Your task to perform on an android device: turn on notifications settings in the gmail app Image 0: 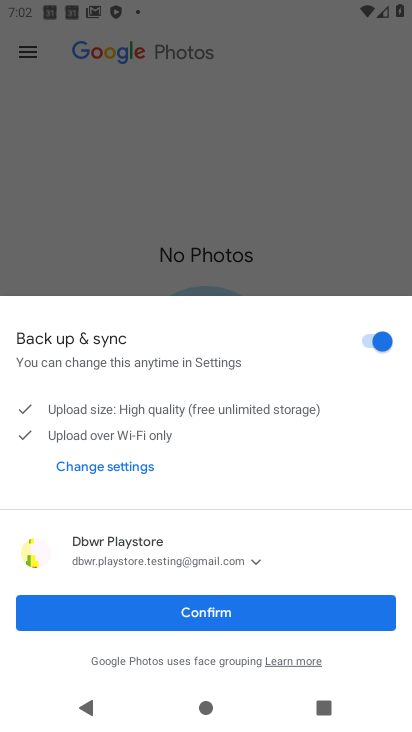
Step 0: press home button
Your task to perform on an android device: turn on notifications settings in the gmail app Image 1: 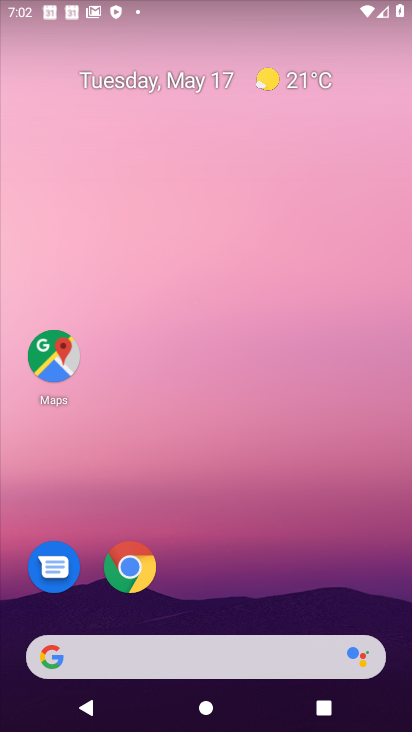
Step 1: drag from (286, 499) to (253, 41)
Your task to perform on an android device: turn on notifications settings in the gmail app Image 2: 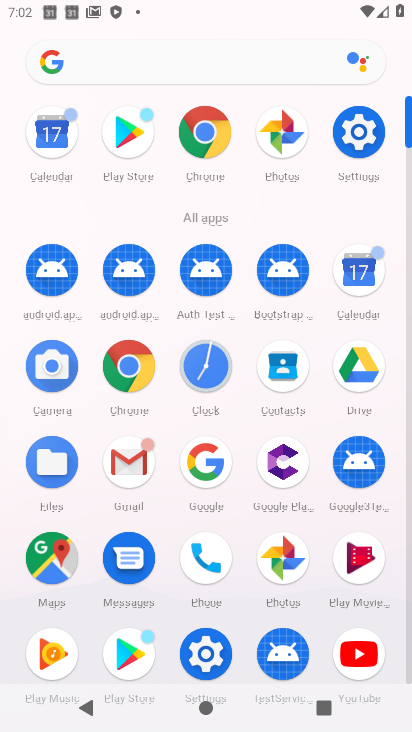
Step 2: click (121, 456)
Your task to perform on an android device: turn on notifications settings in the gmail app Image 3: 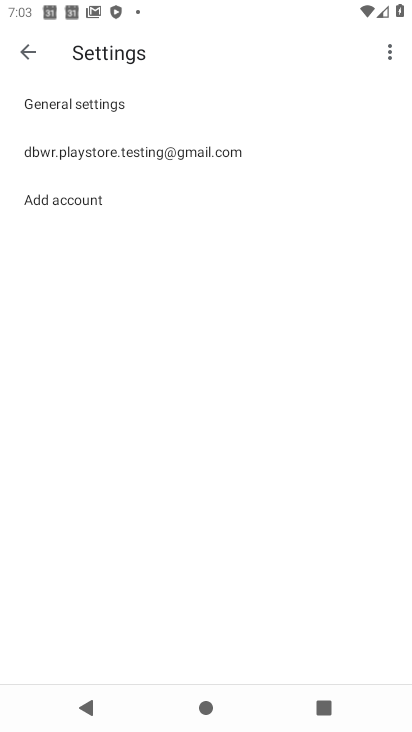
Step 3: click (89, 102)
Your task to perform on an android device: turn on notifications settings in the gmail app Image 4: 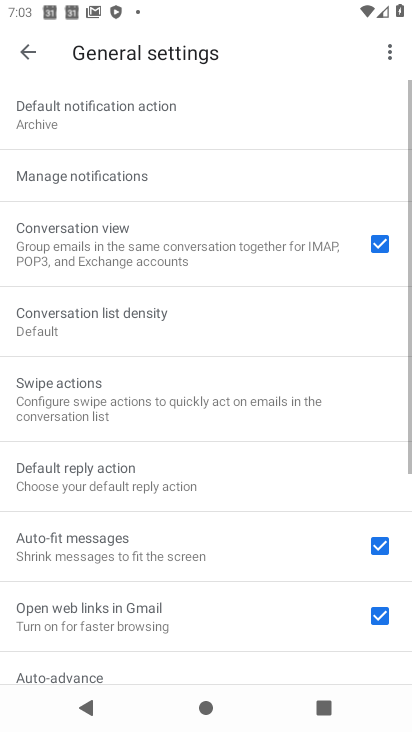
Step 4: click (120, 172)
Your task to perform on an android device: turn on notifications settings in the gmail app Image 5: 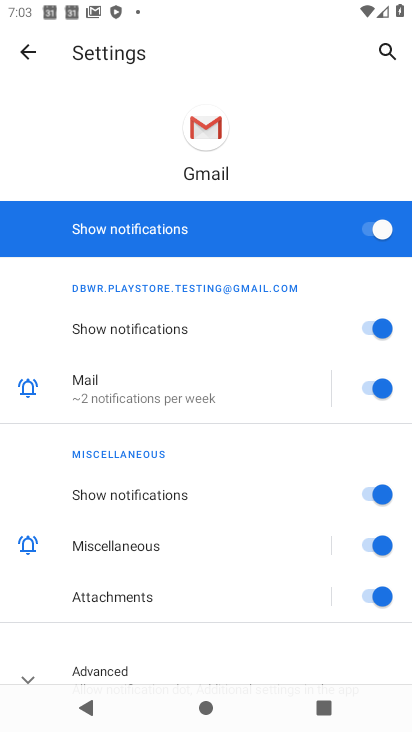
Step 5: task complete